Your task to perform on an android device: Go to accessibility settings Image 0: 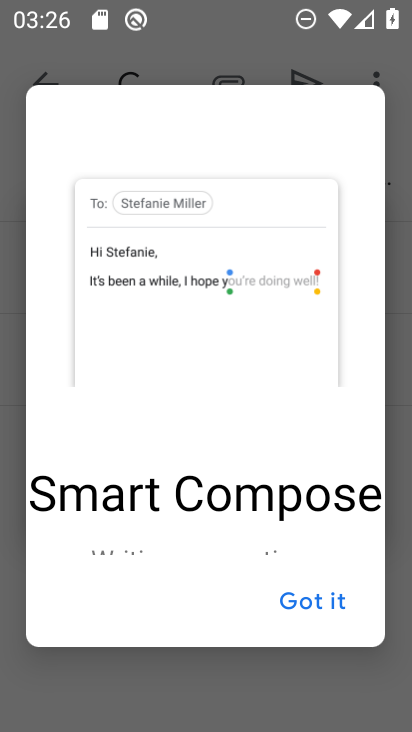
Step 0: press home button
Your task to perform on an android device: Go to accessibility settings Image 1: 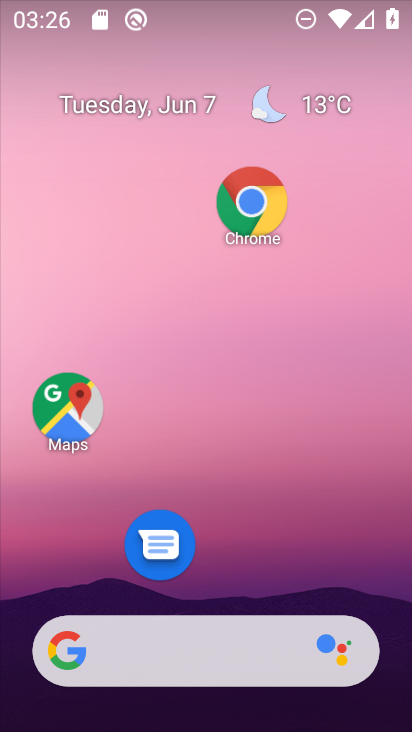
Step 1: drag from (262, 529) to (279, 230)
Your task to perform on an android device: Go to accessibility settings Image 2: 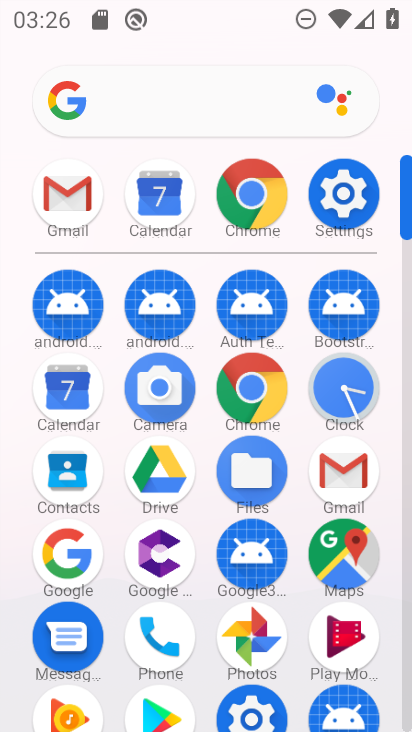
Step 2: click (348, 181)
Your task to perform on an android device: Go to accessibility settings Image 3: 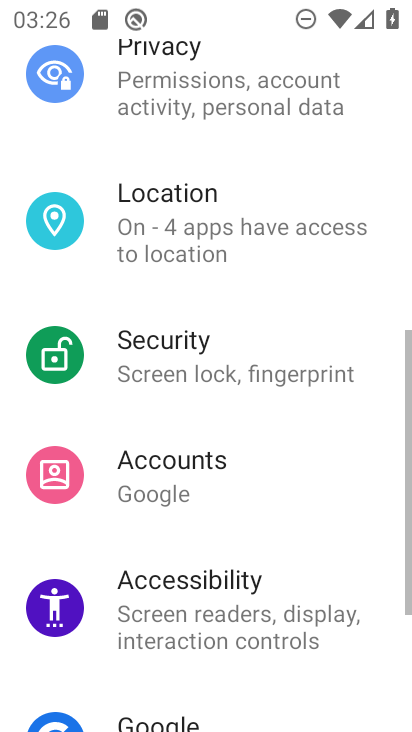
Step 3: drag from (214, 424) to (271, 200)
Your task to perform on an android device: Go to accessibility settings Image 4: 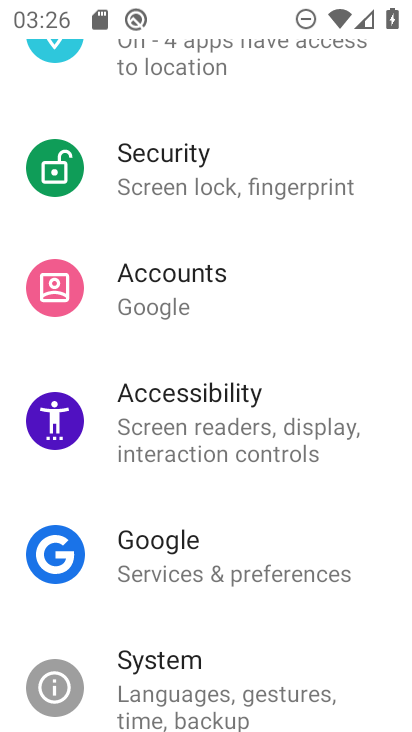
Step 4: click (211, 407)
Your task to perform on an android device: Go to accessibility settings Image 5: 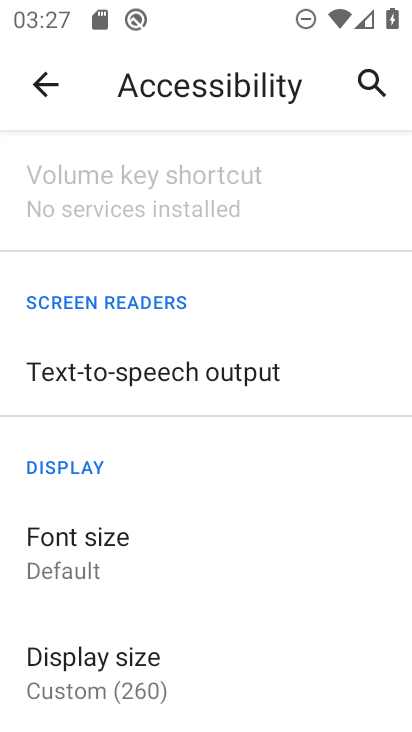
Step 5: task complete